Your task to perform on an android device: Open Google Maps and go to "Timeline" Image 0: 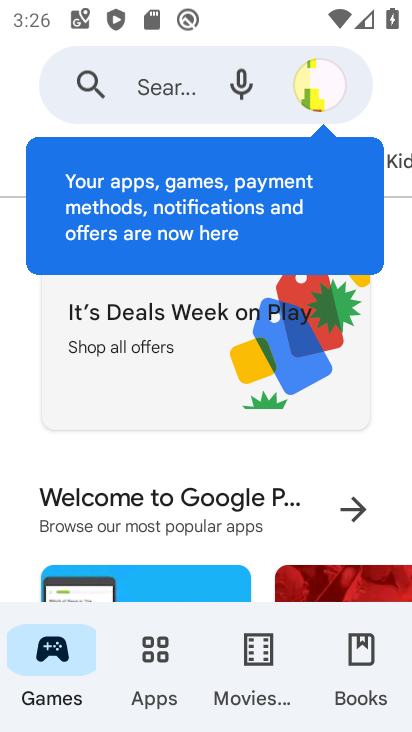
Step 0: press home button
Your task to perform on an android device: Open Google Maps and go to "Timeline" Image 1: 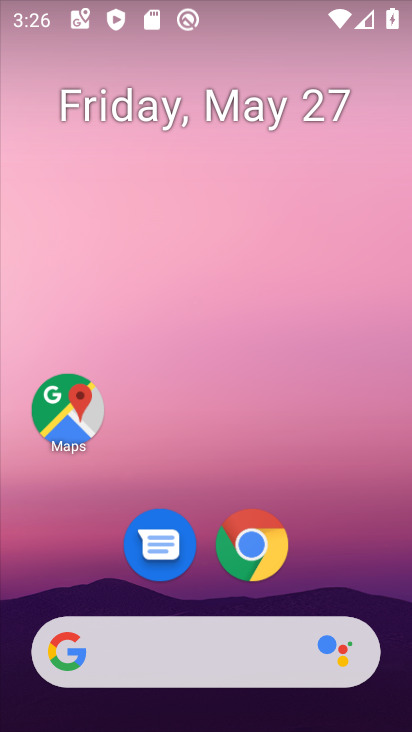
Step 1: click (82, 414)
Your task to perform on an android device: Open Google Maps and go to "Timeline" Image 2: 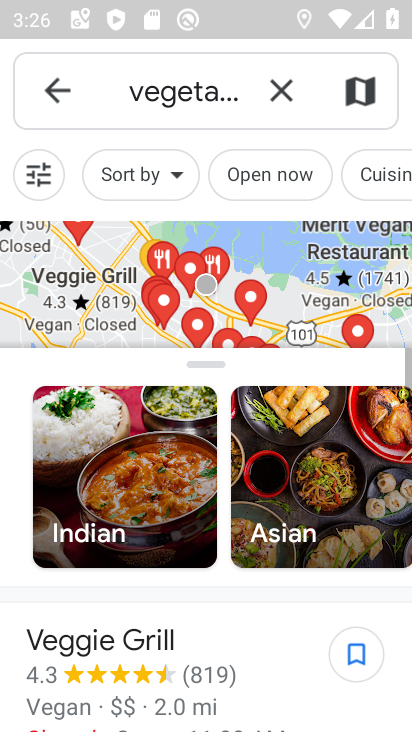
Step 2: click (56, 92)
Your task to perform on an android device: Open Google Maps and go to "Timeline" Image 3: 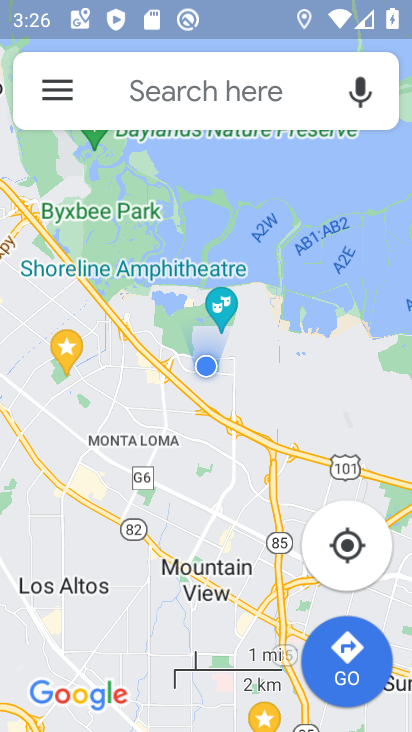
Step 3: click (55, 94)
Your task to perform on an android device: Open Google Maps and go to "Timeline" Image 4: 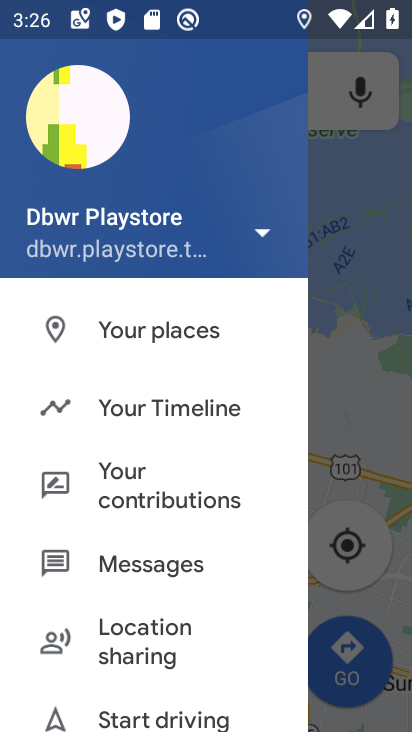
Step 4: click (192, 395)
Your task to perform on an android device: Open Google Maps and go to "Timeline" Image 5: 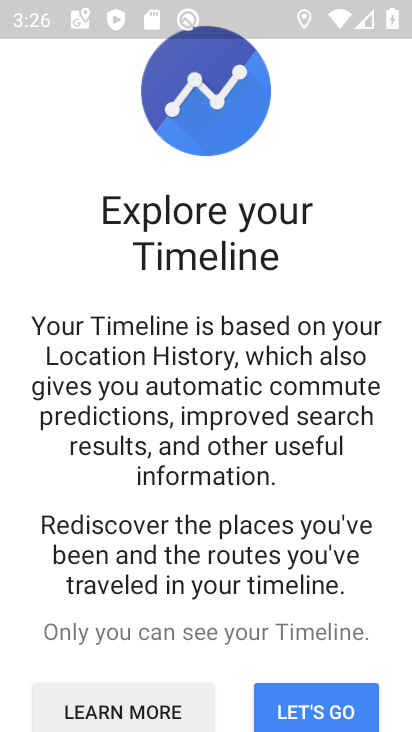
Step 5: drag from (183, 651) to (303, 254)
Your task to perform on an android device: Open Google Maps and go to "Timeline" Image 6: 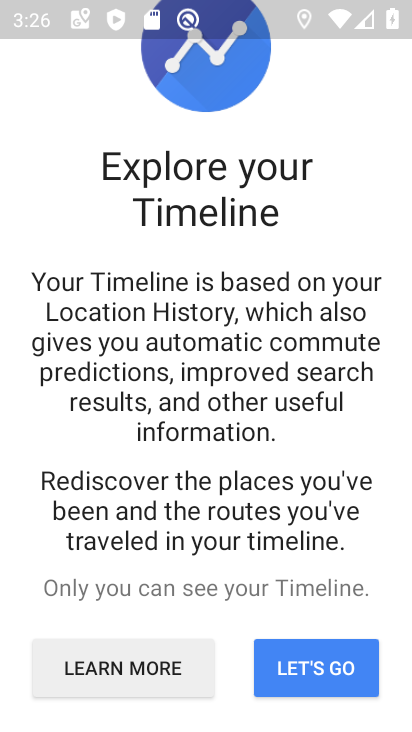
Step 6: click (313, 647)
Your task to perform on an android device: Open Google Maps and go to "Timeline" Image 7: 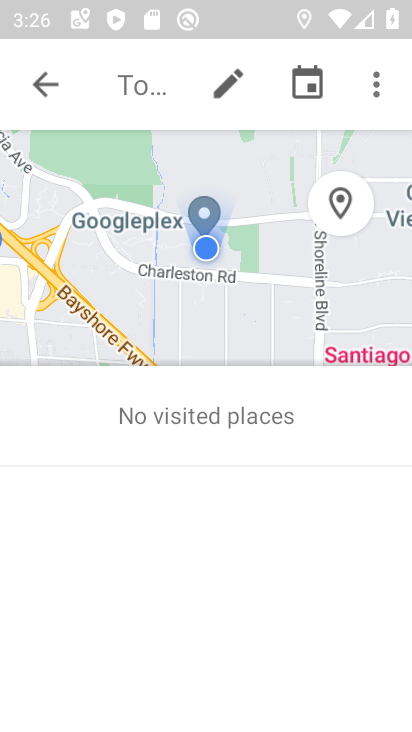
Step 7: task complete